Your task to perform on an android device: Search for sushi restaurants on Maps Image 0: 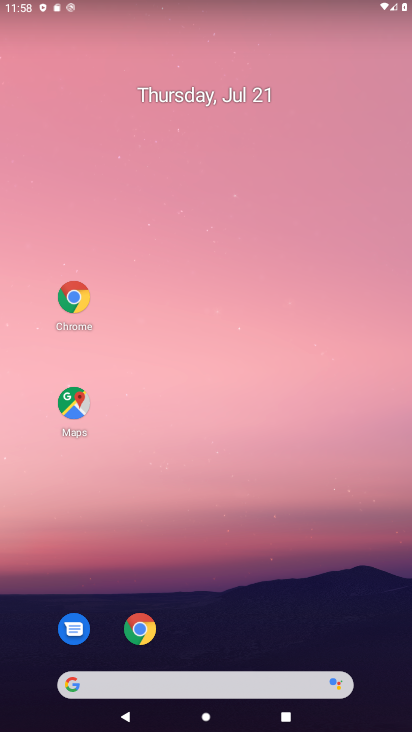
Step 0: drag from (257, 531) to (243, 145)
Your task to perform on an android device: Search for sushi restaurants on Maps Image 1: 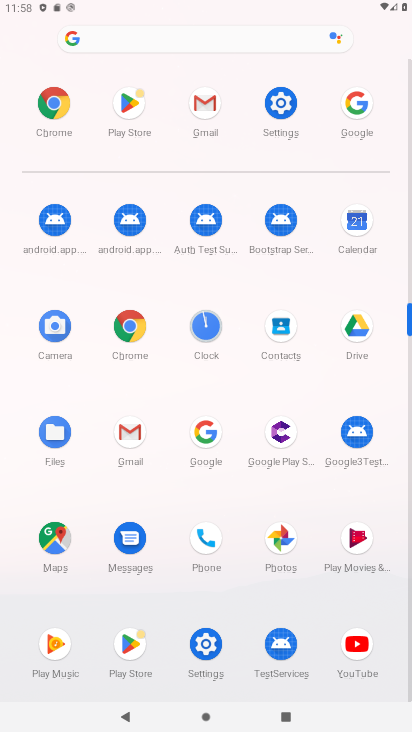
Step 1: click (56, 538)
Your task to perform on an android device: Search for sushi restaurants on Maps Image 2: 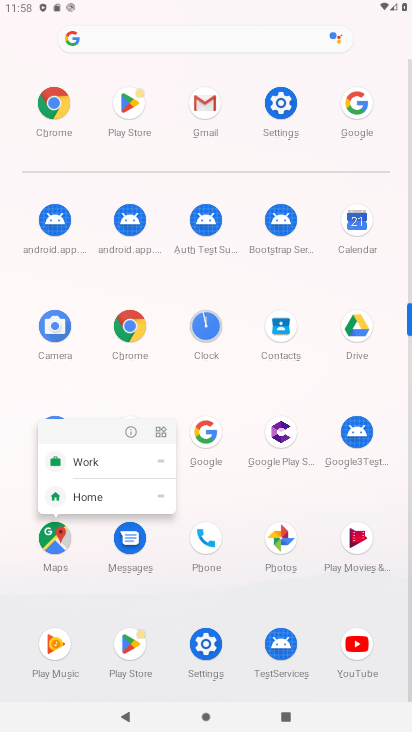
Step 2: click (61, 534)
Your task to perform on an android device: Search for sushi restaurants on Maps Image 3: 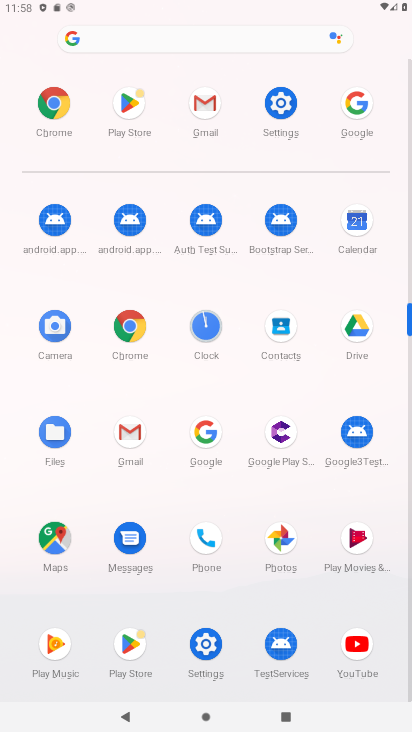
Step 3: click (59, 535)
Your task to perform on an android device: Search for sushi restaurants on Maps Image 4: 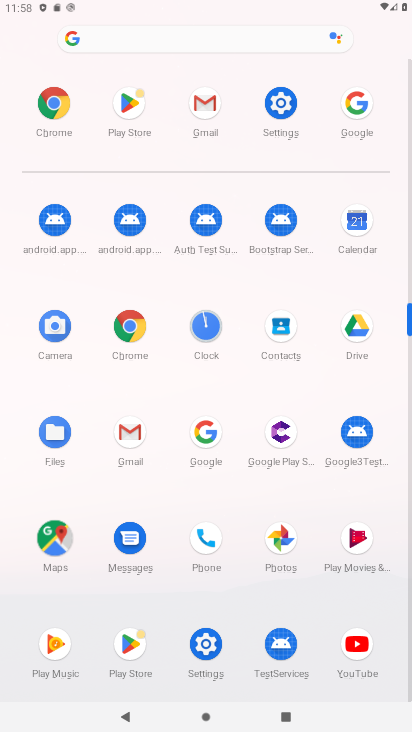
Step 4: click (59, 535)
Your task to perform on an android device: Search for sushi restaurants on Maps Image 5: 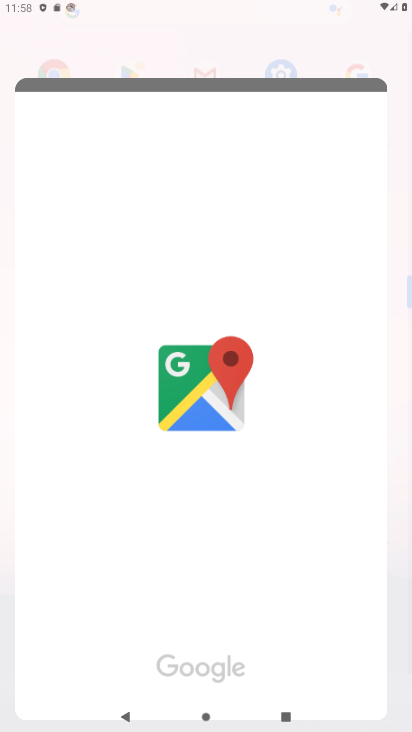
Step 5: click (61, 535)
Your task to perform on an android device: Search for sushi restaurants on Maps Image 6: 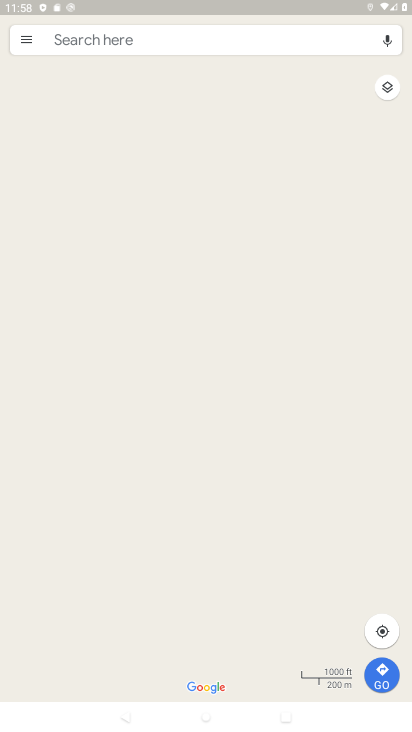
Step 6: click (53, 34)
Your task to perform on an android device: Search for sushi restaurants on Maps Image 7: 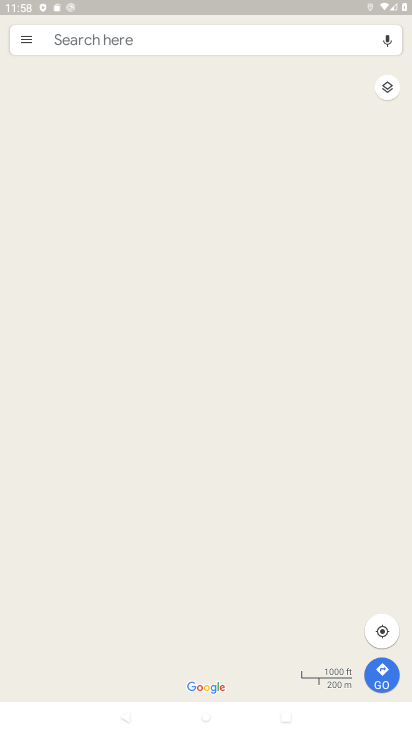
Step 7: click (54, 34)
Your task to perform on an android device: Search for sushi restaurants on Maps Image 8: 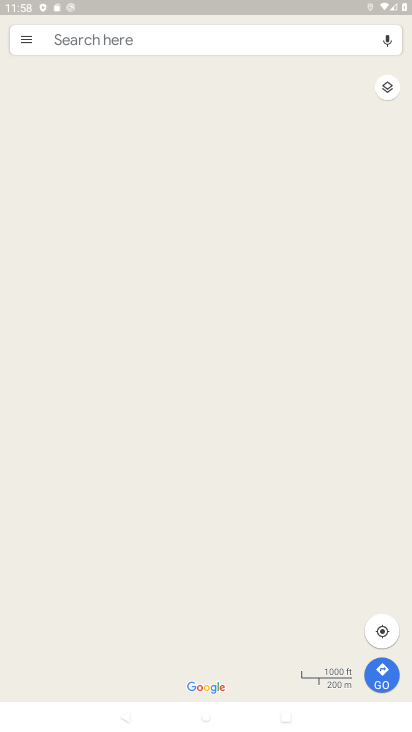
Step 8: click (61, 36)
Your task to perform on an android device: Search for sushi restaurants on Maps Image 9: 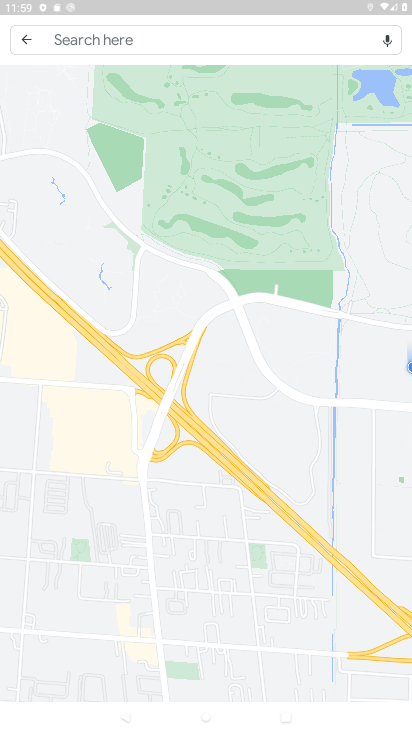
Step 9: click (69, 40)
Your task to perform on an android device: Search for sushi restaurants on Maps Image 10: 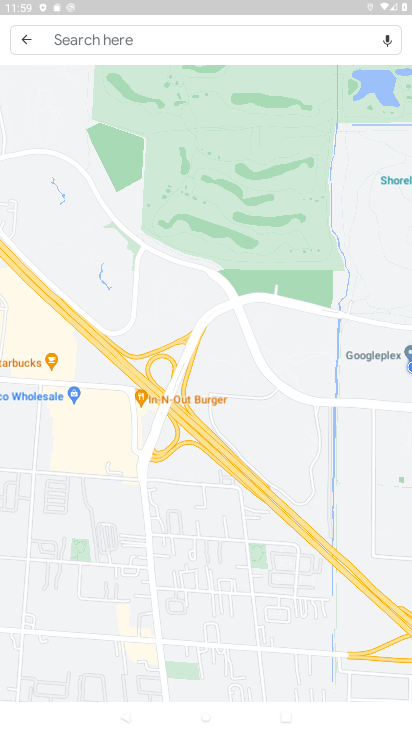
Step 10: click (69, 40)
Your task to perform on an android device: Search for sushi restaurants on Maps Image 11: 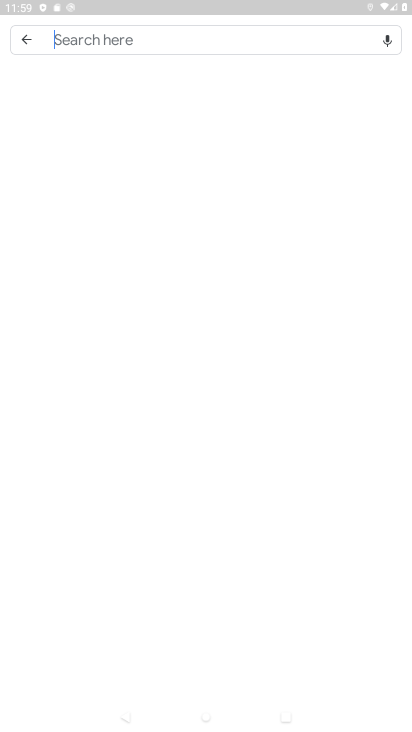
Step 11: click (68, 39)
Your task to perform on an android device: Search for sushi restaurants on Maps Image 12: 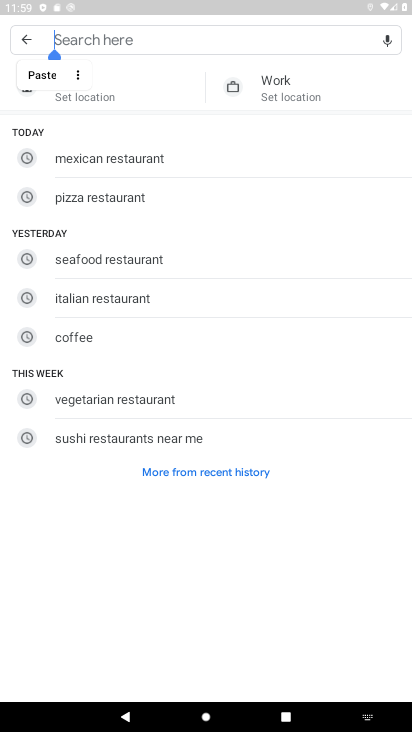
Step 12: click (97, 432)
Your task to perform on an android device: Search for sushi restaurants on Maps Image 13: 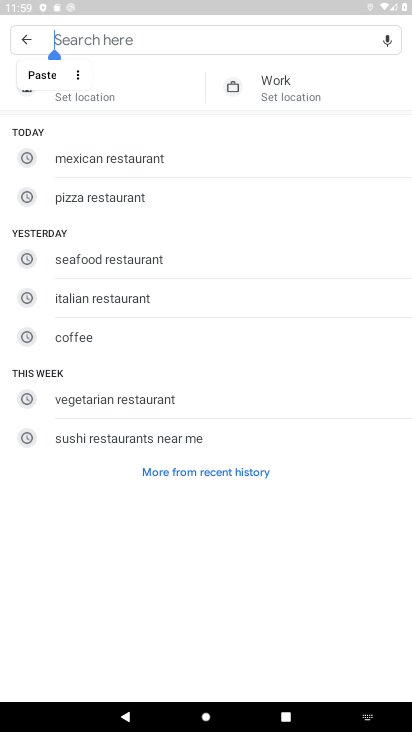
Step 13: click (97, 433)
Your task to perform on an android device: Search for sushi restaurants on Maps Image 14: 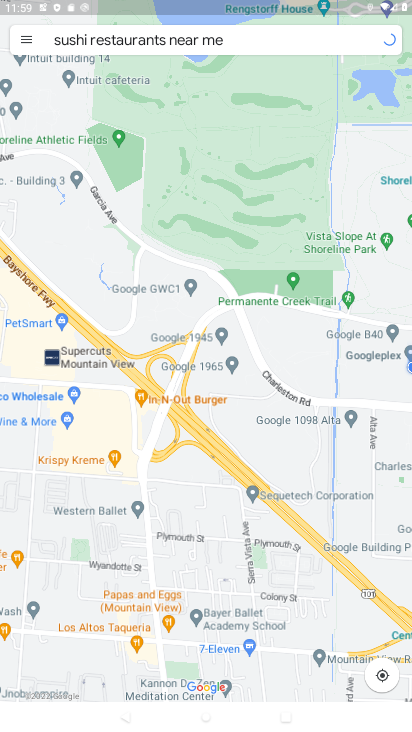
Step 14: task complete